Your task to perform on an android device: manage bookmarks in the chrome app Image 0: 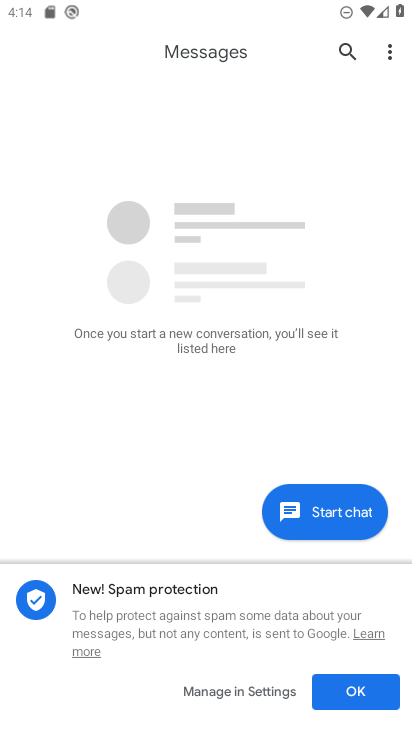
Step 0: press home button
Your task to perform on an android device: manage bookmarks in the chrome app Image 1: 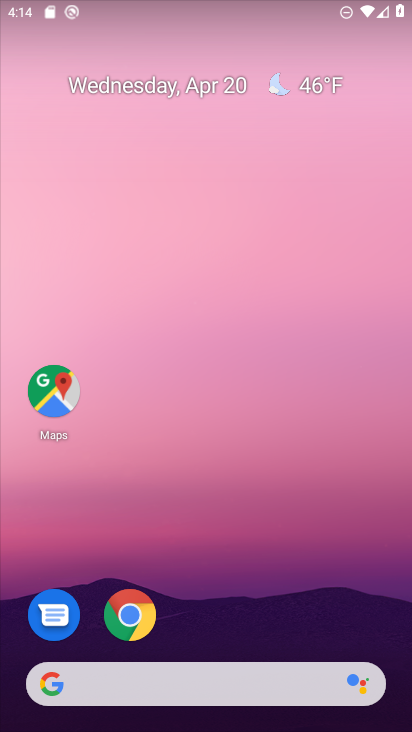
Step 1: drag from (265, 362) to (307, 135)
Your task to perform on an android device: manage bookmarks in the chrome app Image 2: 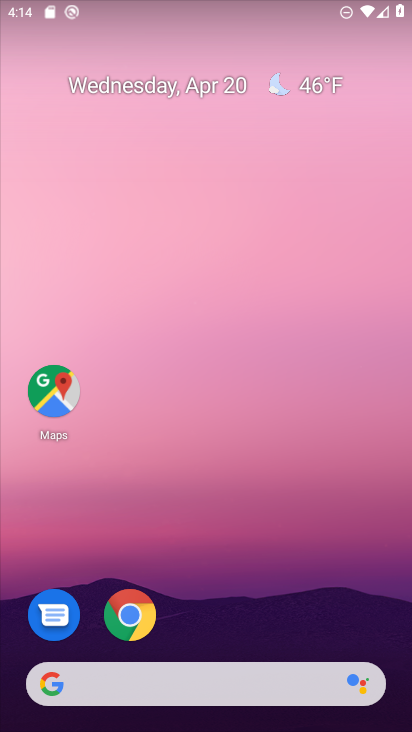
Step 2: drag from (297, 407) to (348, 134)
Your task to perform on an android device: manage bookmarks in the chrome app Image 3: 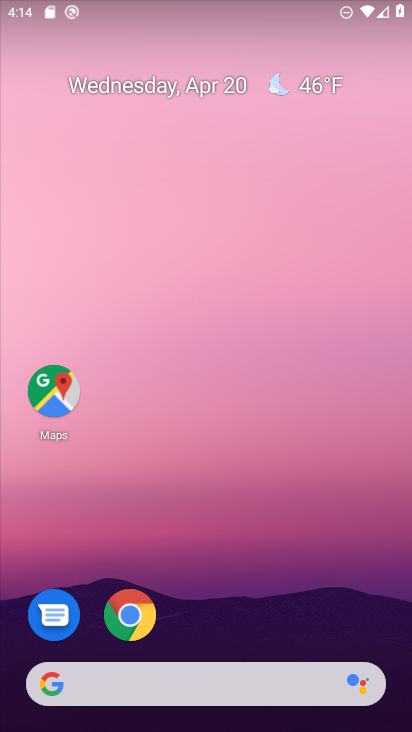
Step 3: drag from (296, 616) to (353, 125)
Your task to perform on an android device: manage bookmarks in the chrome app Image 4: 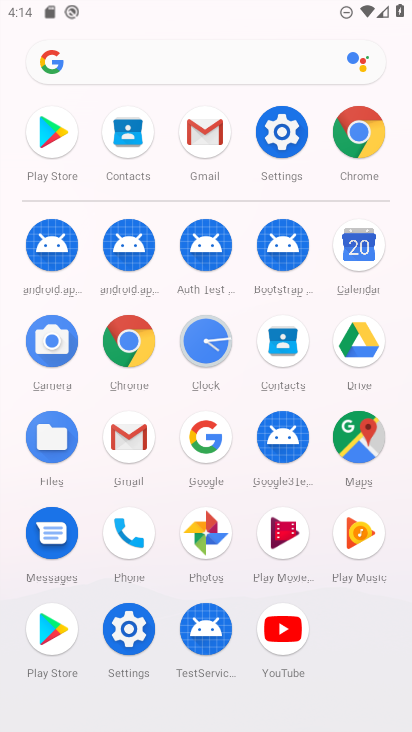
Step 4: click (360, 143)
Your task to perform on an android device: manage bookmarks in the chrome app Image 5: 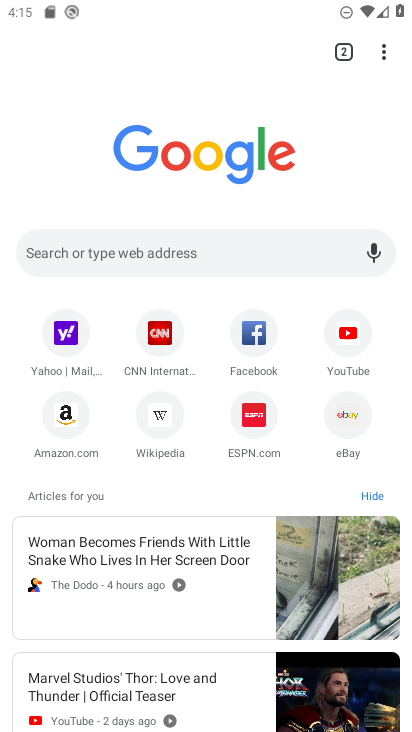
Step 5: drag from (392, 47) to (237, 260)
Your task to perform on an android device: manage bookmarks in the chrome app Image 6: 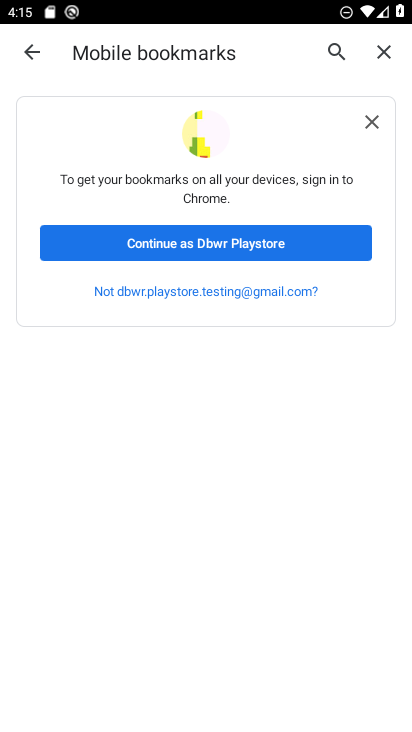
Step 6: click (230, 227)
Your task to perform on an android device: manage bookmarks in the chrome app Image 7: 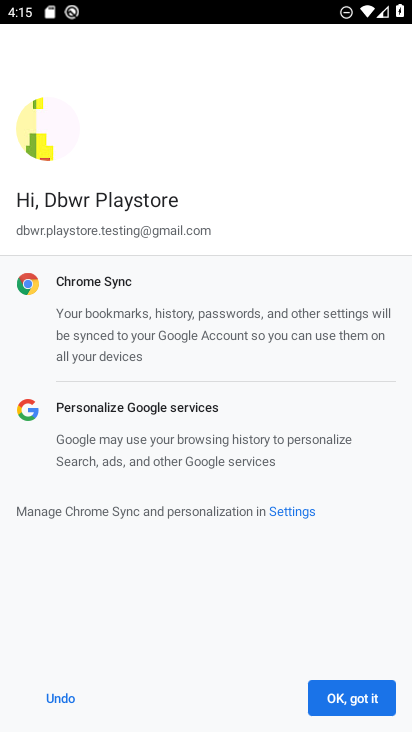
Step 7: click (387, 704)
Your task to perform on an android device: manage bookmarks in the chrome app Image 8: 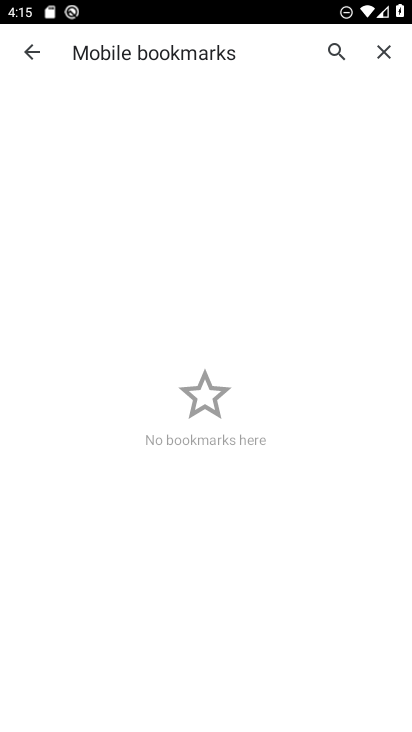
Step 8: task complete